Your task to perform on an android device: turn off notifications settings in the gmail app Image 0: 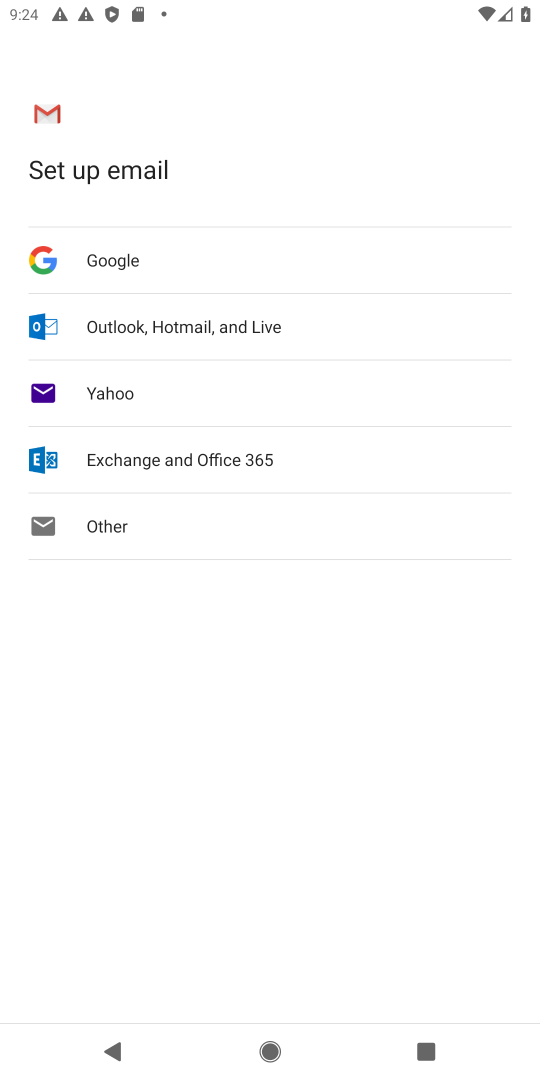
Step 0: press home button
Your task to perform on an android device: turn off notifications settings in the gmail app Image 1: 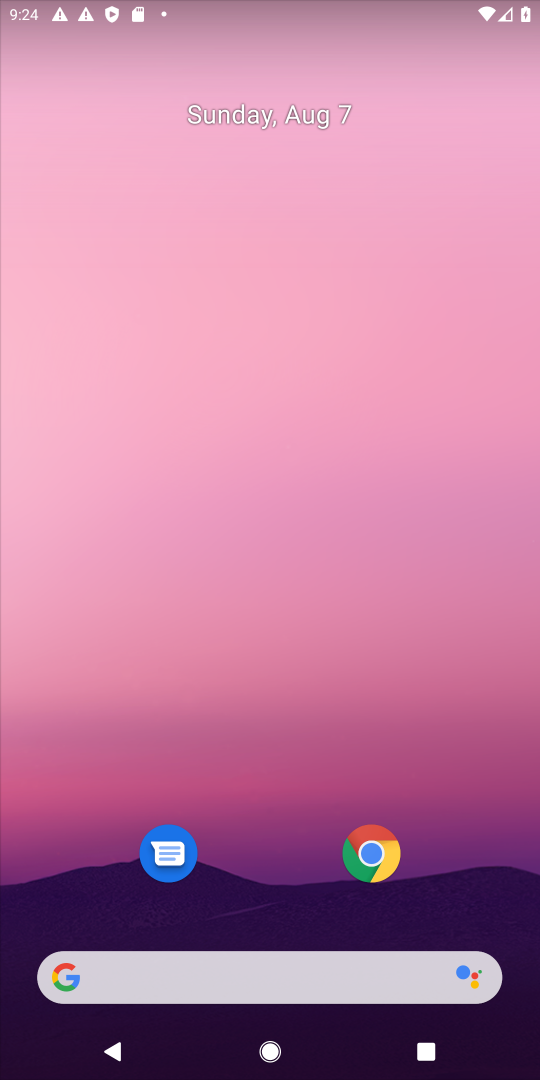
Step 1: drag from (478, 563) to (486, 297)
Your task to perform on an android device: turn off notifications settings in the gmail app Image 2: 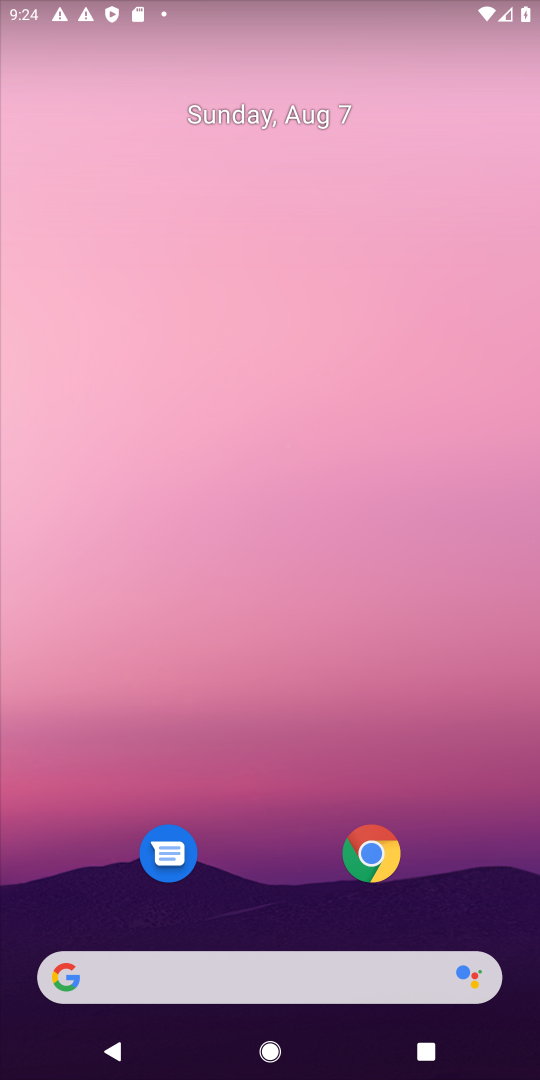
Step 2: drag from (475, 876) to (493, 301)
Your task to perform on an android device: turn off notifications settings in the gmail app Image 3: 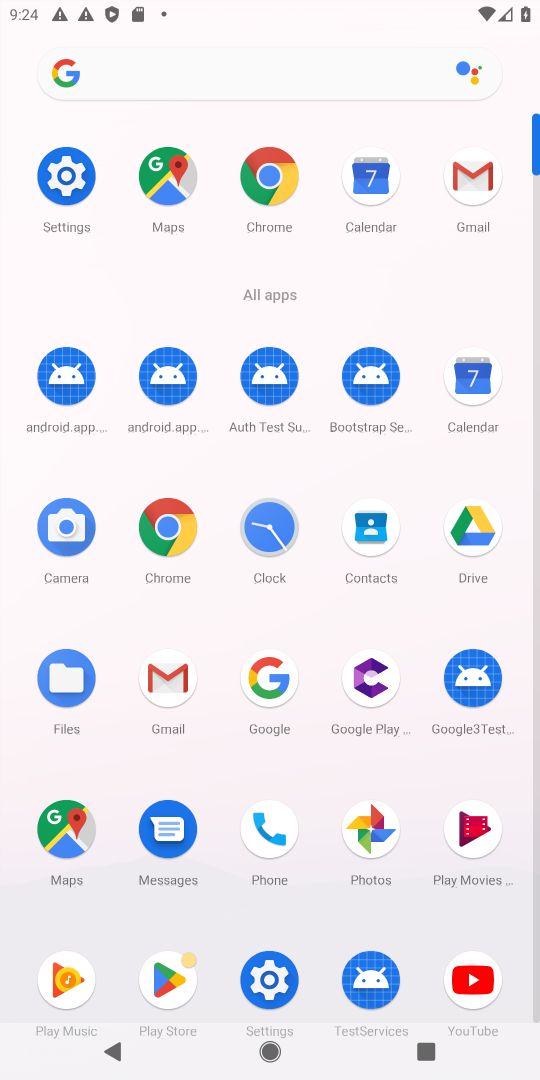
Step 3: click (162, 683)
Your task to perform on an android device: turn off notifications settings in the gmail app Image 4: 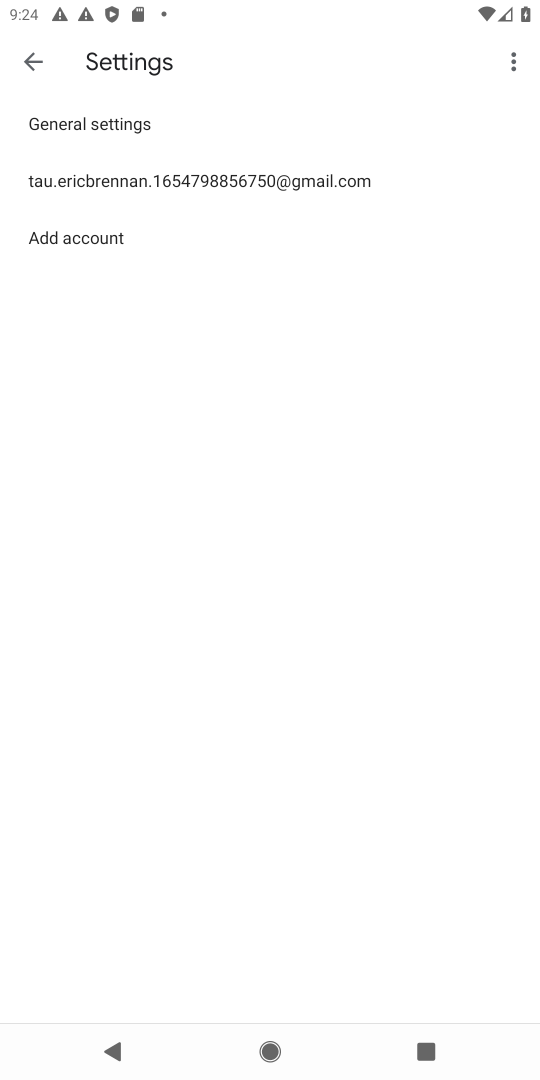
Step 4: click (176, 180)
Your task to perform on an android device: turn off notifications settings in the gmail app Image 5: 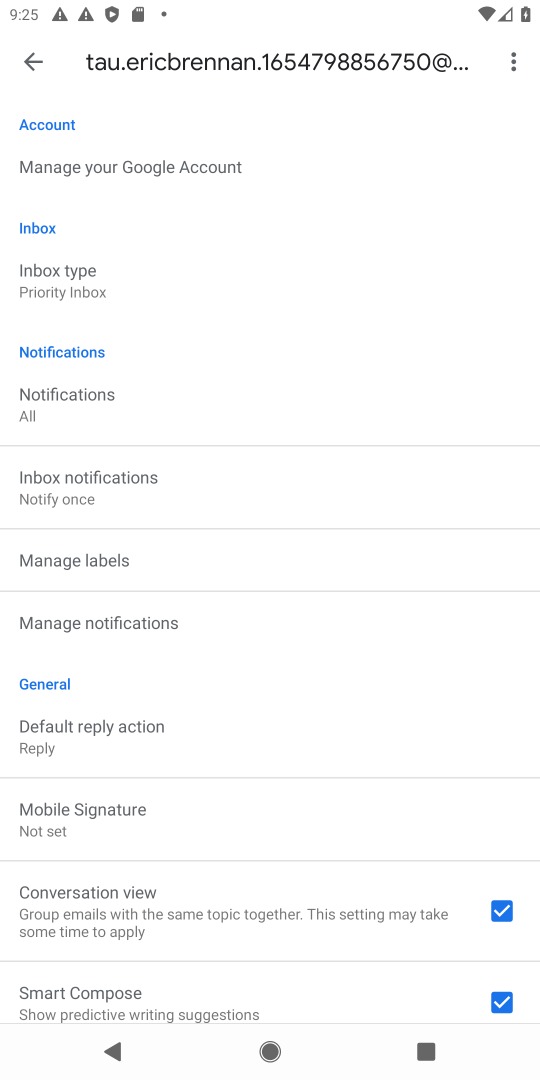
Step 5: drag from (428, 652) to (432, 465)
Your task to perform on an android device: turn off notifications settings in the gmail app Image 6: 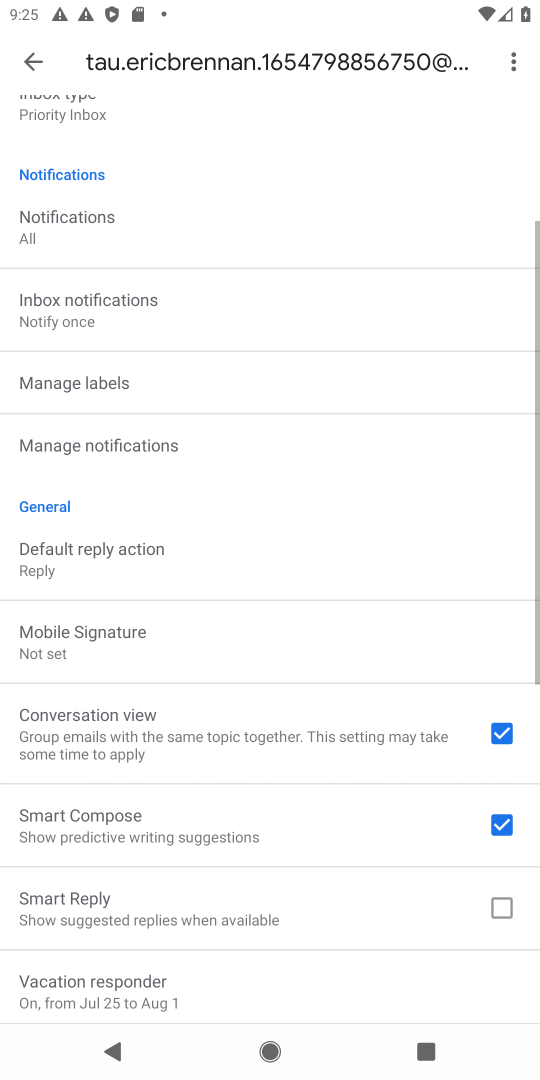
Step 6: drag from (333, 431) to (351, 601)
Your task to perform on an android device: turn off notifications settings in the gmail app Image 7: 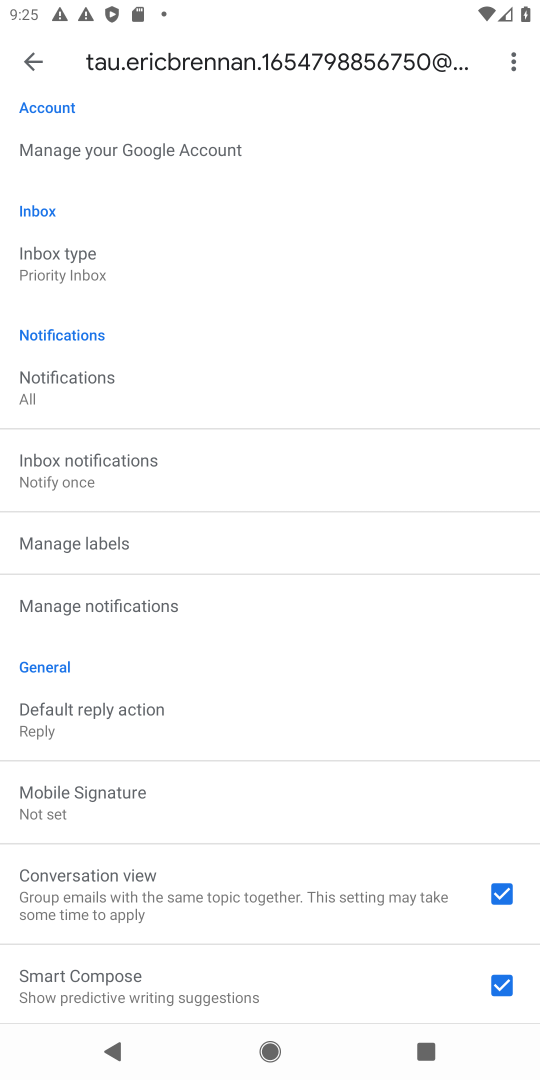
Step 7: drag from (366, 382) to (395, 571)
Your task to perform on an android device: turn off notifications settings in the gmail app Image 8: 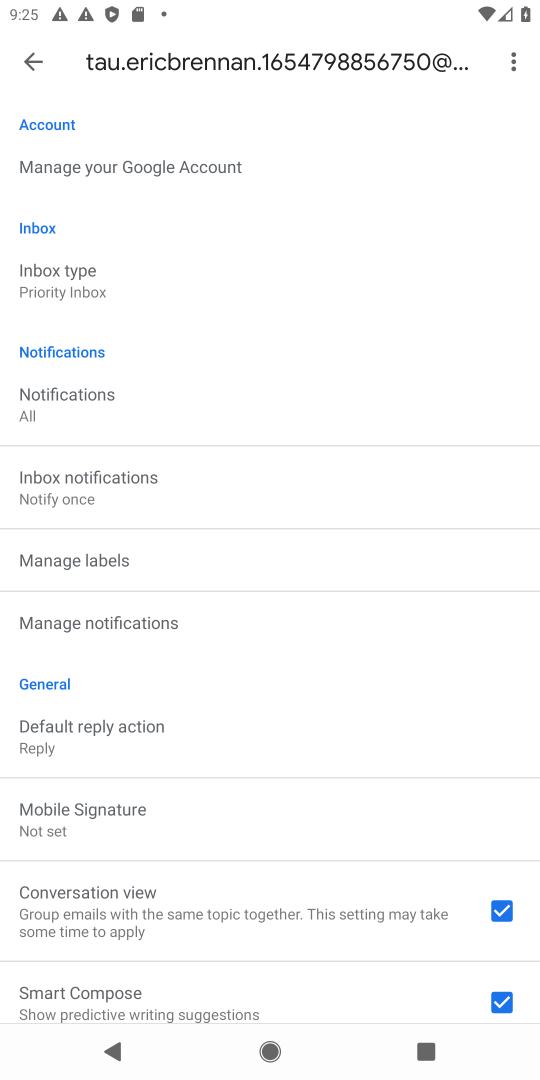
Step 8: click (214, 615)
Your task to perform on an android device: turn off notifications settings in the gmail app Image 9: 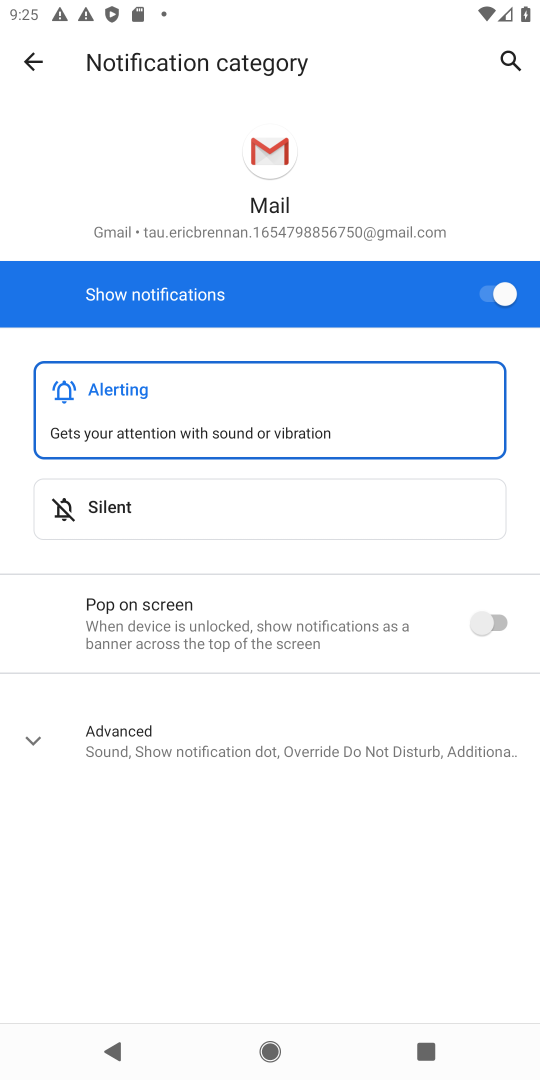
Step 9: click (506, 292)
Your task to perform on an android device: turn off notifications settings in the gmail app Image 10: 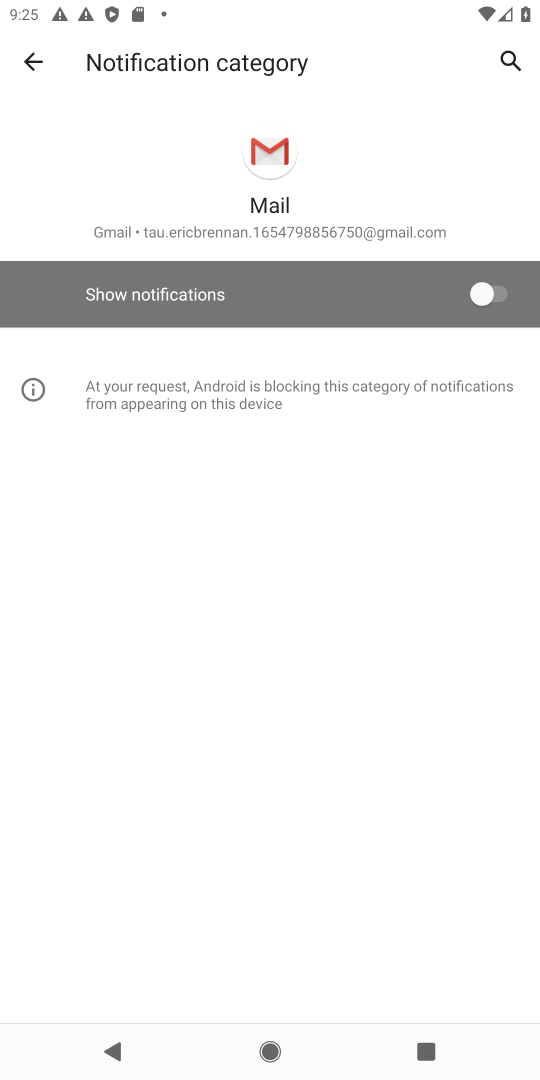
Step 10: task complete